Your task to perform on an android device: Find coffee shops on Maps Image 0: 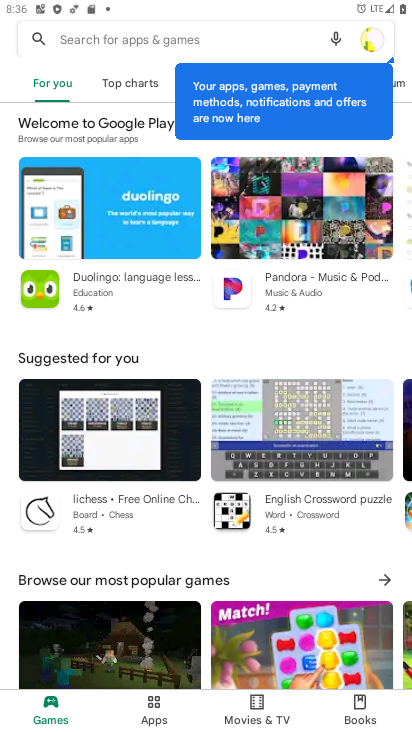
Step 0: press home button
Your task to perform on an android device: Find coffee shops on Maps Image 1: 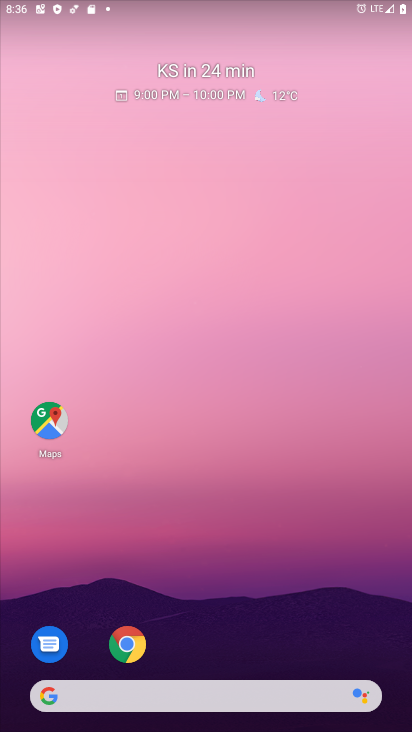
Step 1: click (49, 422)
Your task to perform on an android device: Find coffee shops on Maps Image 2: 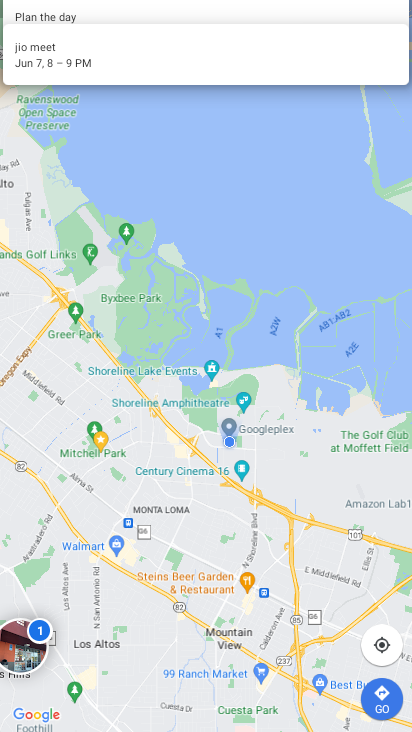
Step 2: drag from (103, 52) to (399, 164)
Your task to perform on an android device: Find coffee shops on Maps Image 3: 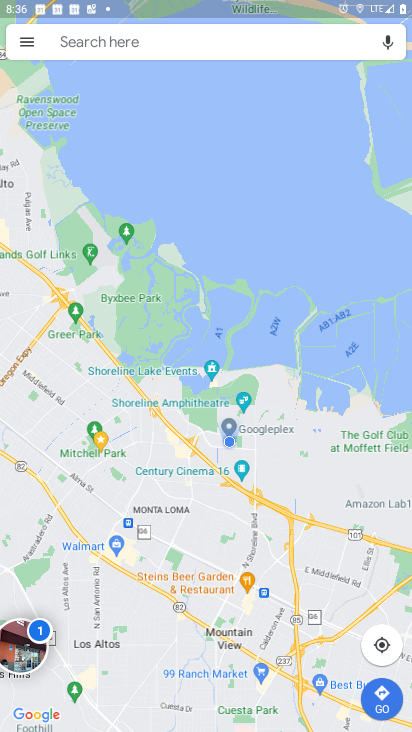
Step 3: click (125, 36)
Your task to perform on an android device: Find coffee shops on Maps Image 4: 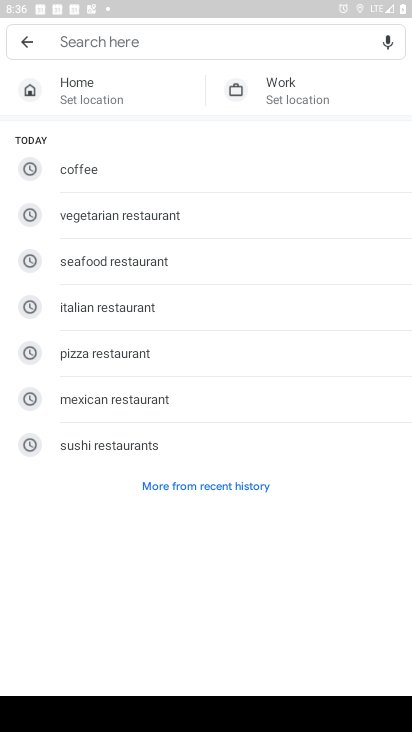
Step 4: type "coffe shop"
Your task to perform on an android device: Find coffee shops on Maps Image 5: 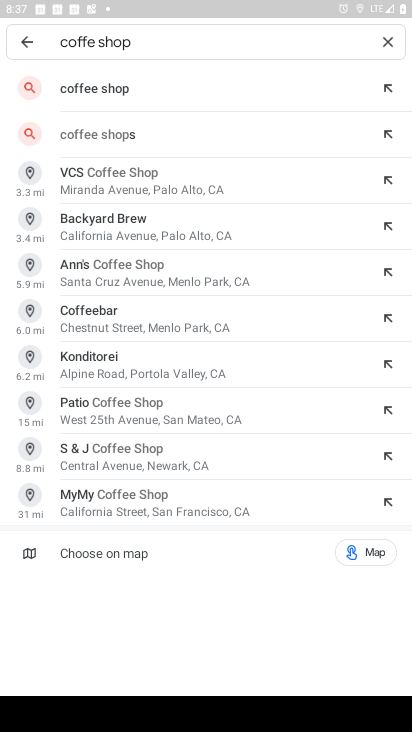
Step 5: click (99, 90)
Your task to perform on an android device: Find coffee shops on Maps Image 6: 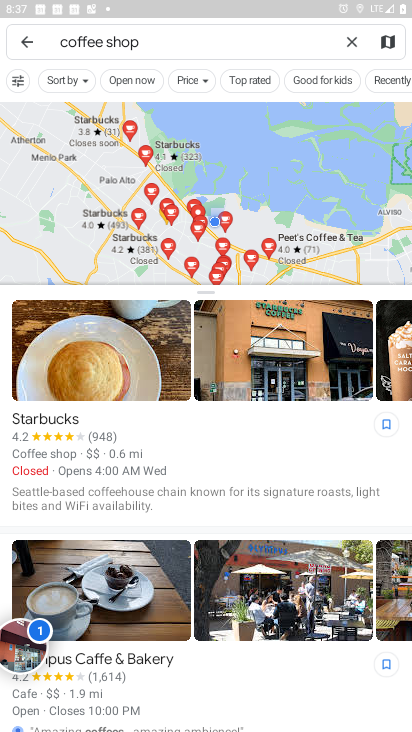
Step 6: task complete